Your task to perform on an android device: turn off data saver in the chrome app Image 0: 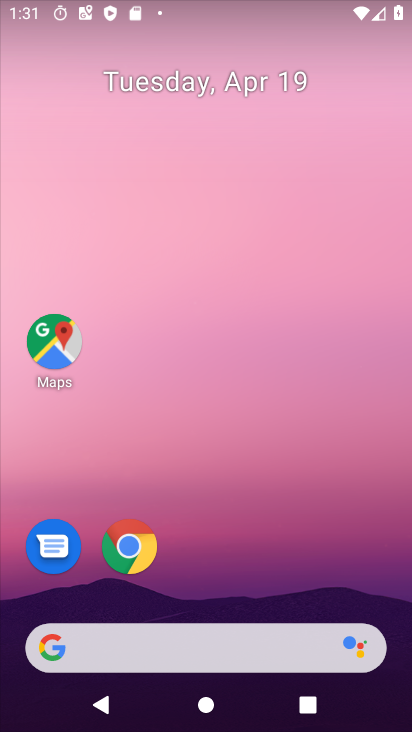
Step 0: click (131, 552)
Your task to perform on an android device: turn off data saver in the chrome app Image 1: 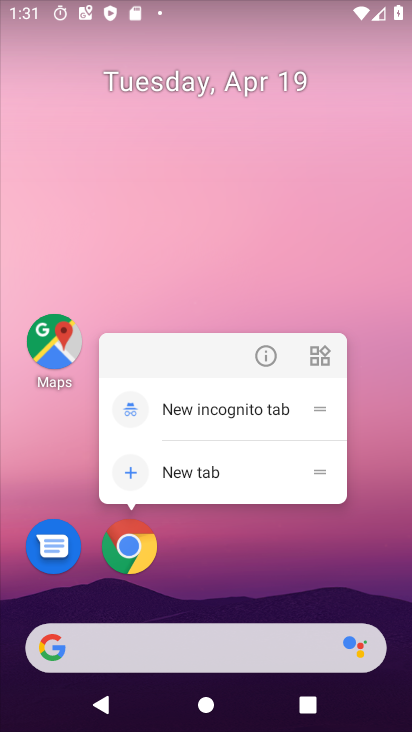
Step 1: click (121, 546)
Your task to perform on an android device: turn off data saver in the chrome app Image 2: 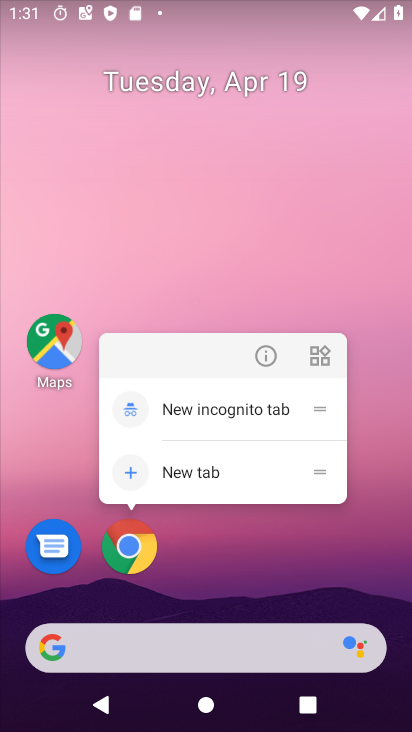
Step 2: click (132, 545)
Your task to perform on an android device: turn off data saver in the chrome app Image 3: 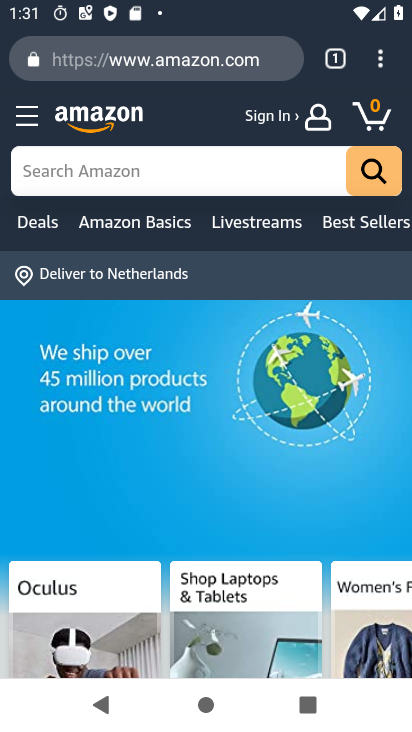
Step 3: drag from (379, 53) to (184, 571)
Your task to perform on an android device: turn off data saver in the chrome app Image 4: 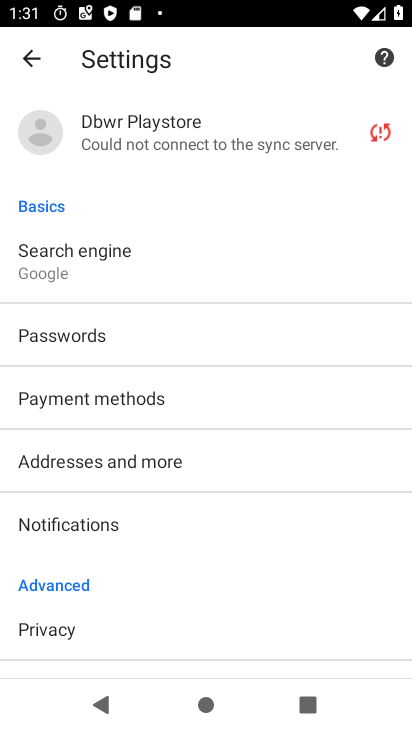
Step 4: drag from (156, 582) to (234, 153)
Your task to perform on an android device: turn off data saver in the chrome app Image 5: 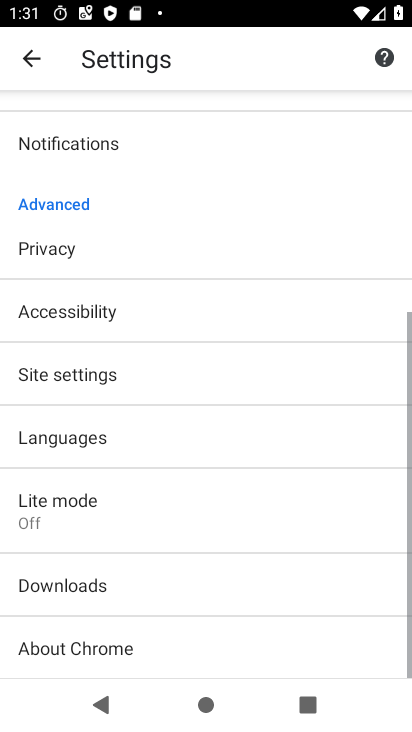
Step 5: click (94, 503)
Your task to perform on an android device: turn off data saver in the chrome app Image 6: 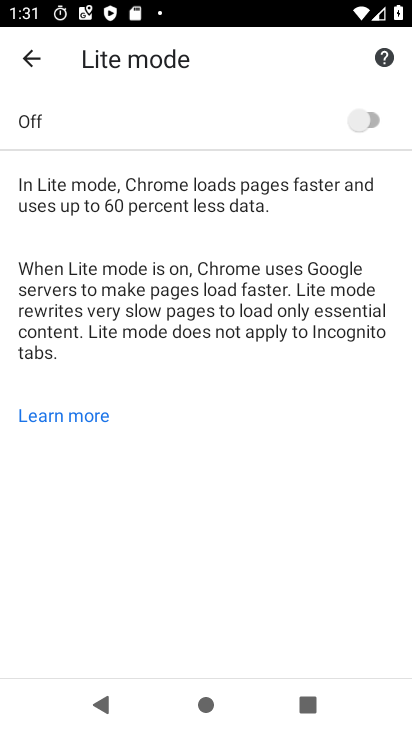
Step 6: task complete